Your task to perform on an android device: What's on my calendar tomorrow? Image 0: 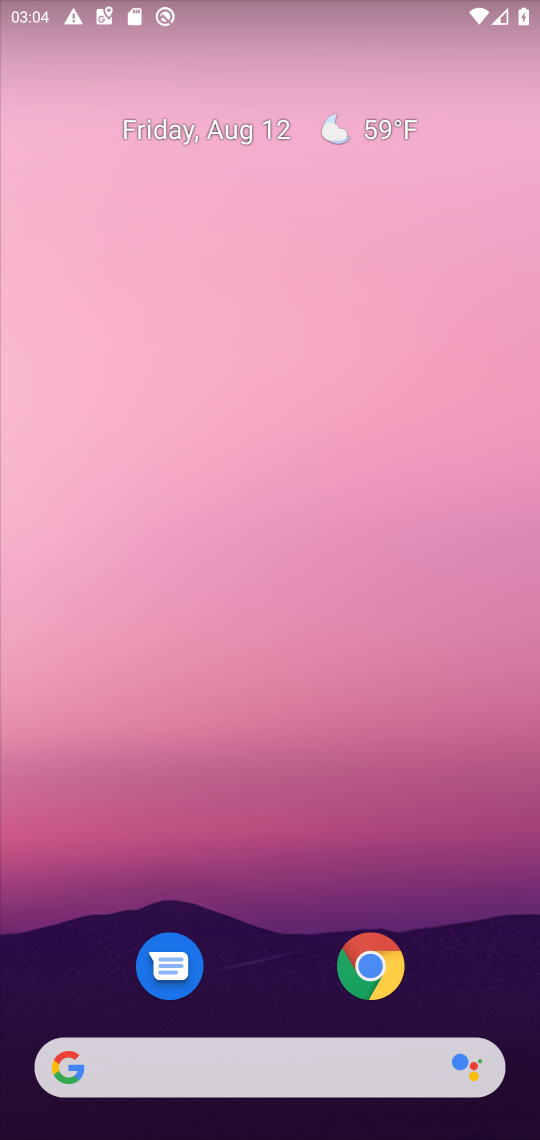
Step 0: click (174, 132)
Your task to perform on an android device: What's on my calendar tomorrow? Image 1: 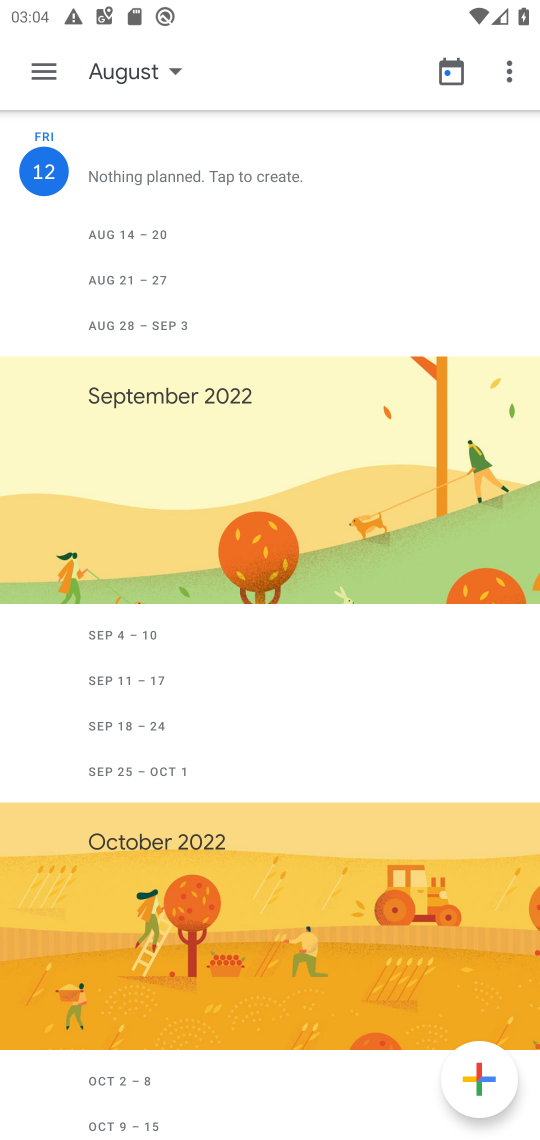
Step 1: click (207, 133)
Your task to perform on an android device: What's on my calendar tomorrow? Image 2: 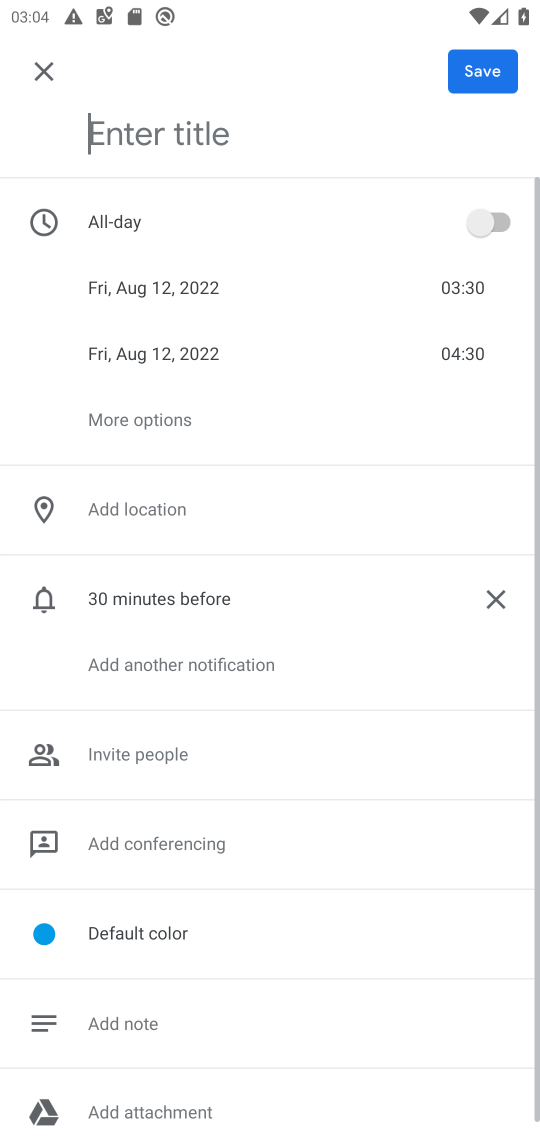
Step 2: click (133, 77)
Your task to perform on an android device: What's on my calendar tomorrow? Image 3: 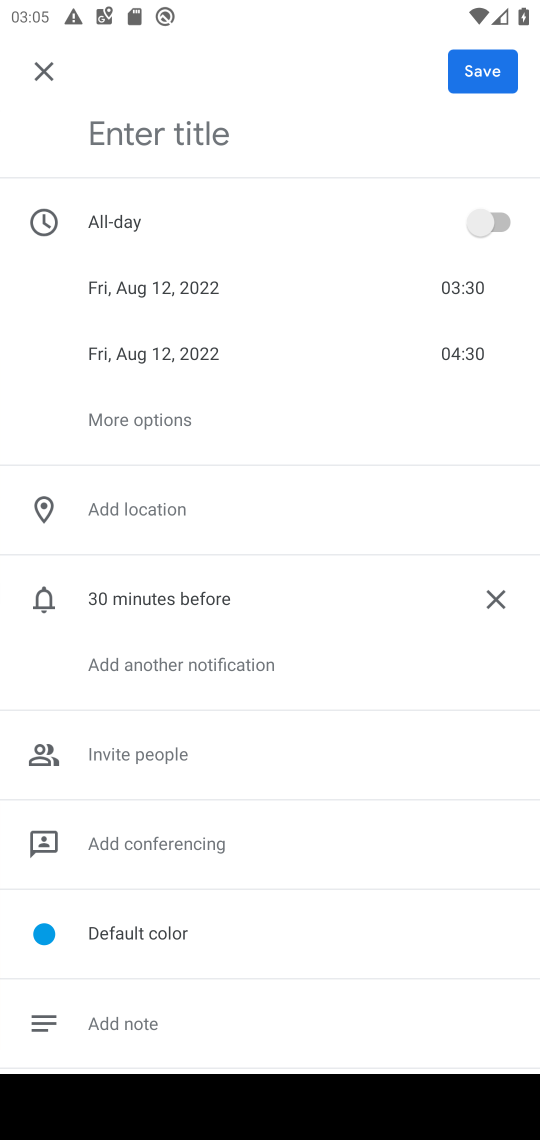
Step 3: click (54, 70)
Your task to perform on an android device: What's on my calendar tomorrow? Image 4: 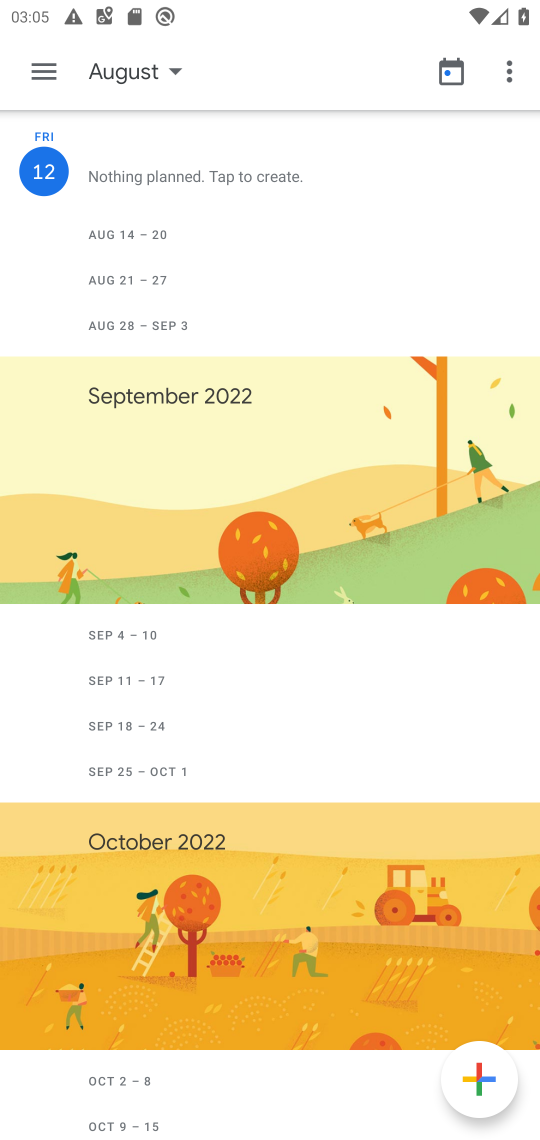
Step 4: click (124, 80)
Your task to perform on an android device: What's on my calendar tomorrow? Image 5: 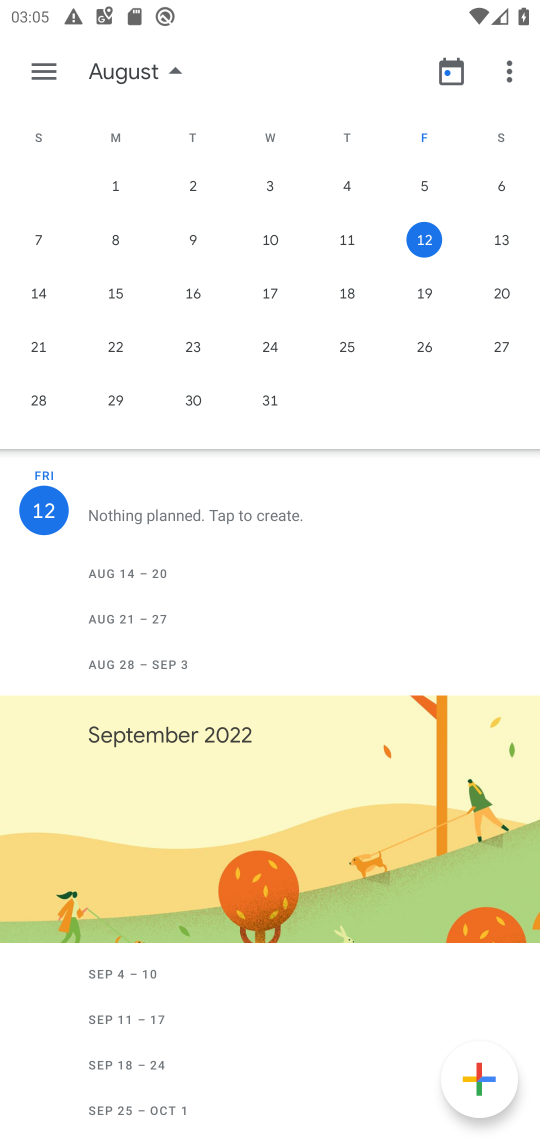
Step 5: click (507, 228)
Your task to perform on an android device: What's on my calendar tomorrow? Image 6: 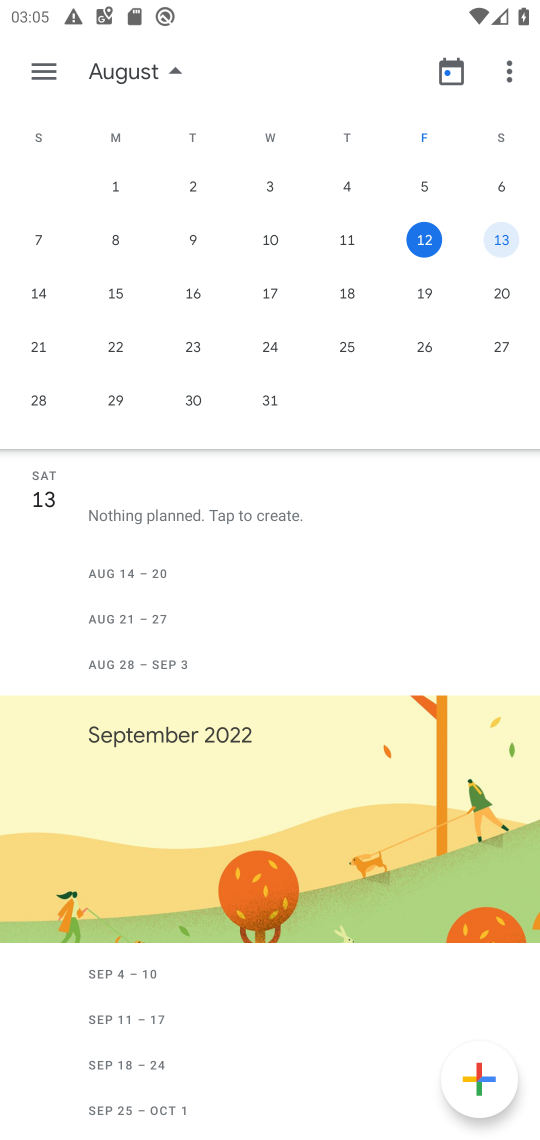
Step 6: click (502, 229)
Your task to perform on an android device: What's on my calendar tomorrow? Image 7: 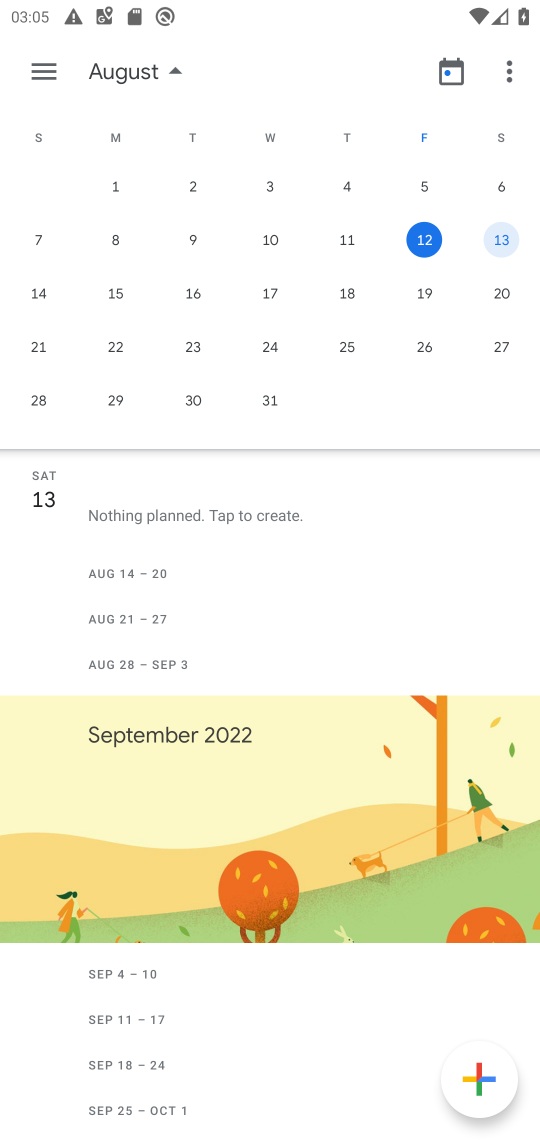
Step 7: click (496, 245)
Your task to perform on an android device: What's on my calendar tomorrow? Image 8: 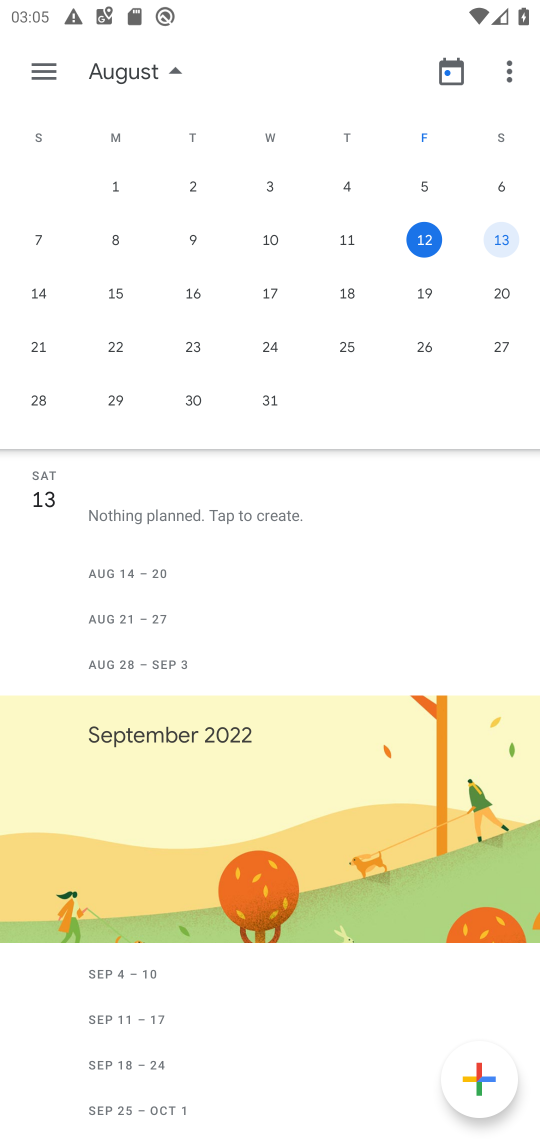
Step 8: click (497, 244)
Your task to perform on an android device: What's on my calendar tomorrow? Image 9: 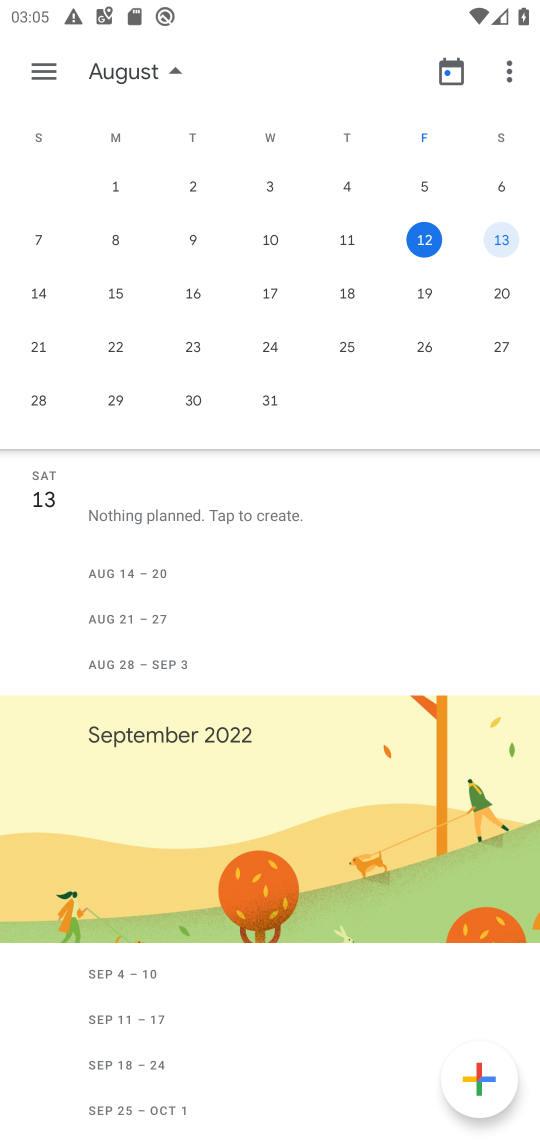
Step 9: click (494, 238)
Your task to perform on an android device: What's on my calendar tomorrow? Image 10: 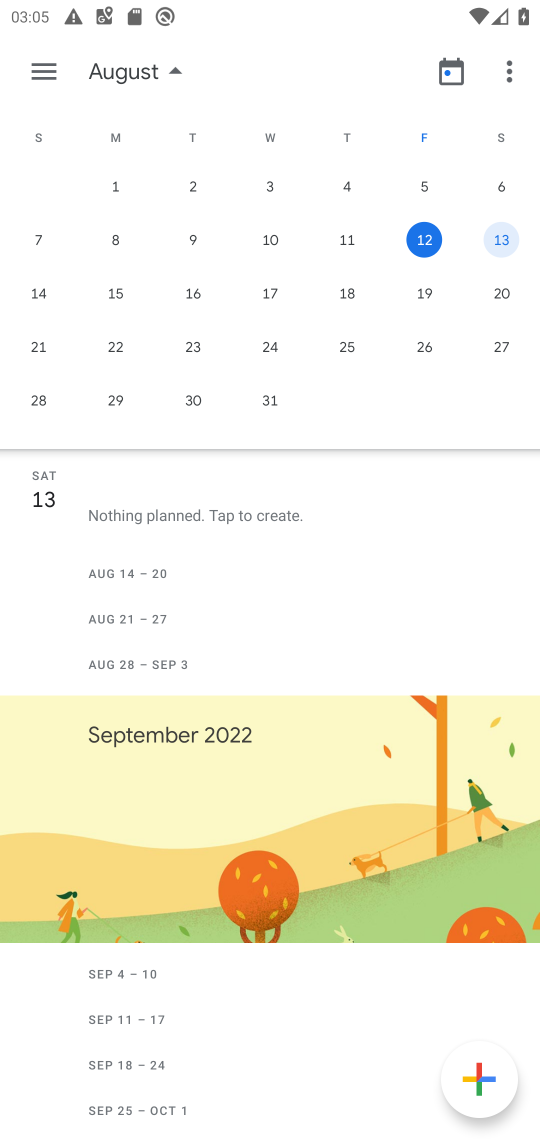
Step 10: task complete